Your task to perform on an android device: Open ESPN.com Image 0: 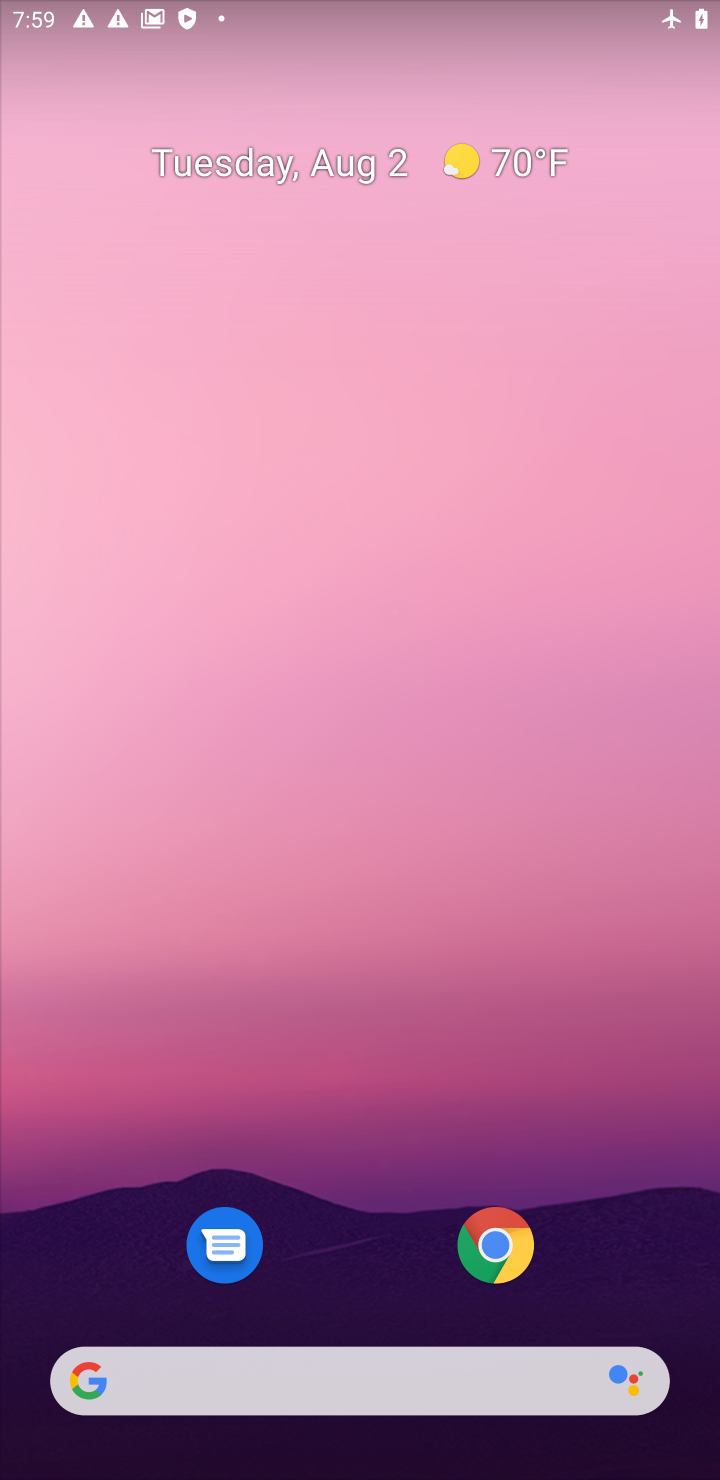
Step 0: click (506, 1260)
Your task to perform on an android device: Open ESPN.com Image 1: 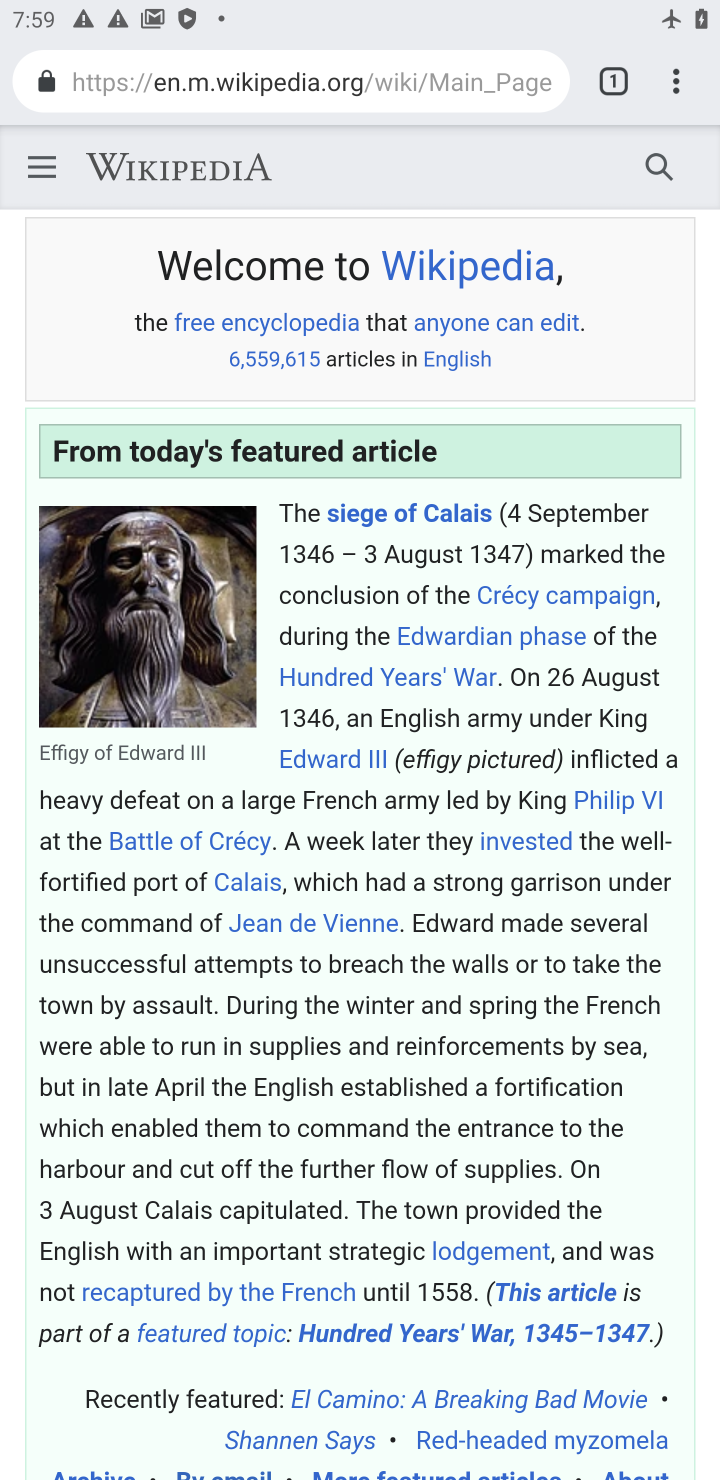
Step 1: click (402, 93)
Your task to perform on an android device: Open ESPN.com Image 2: 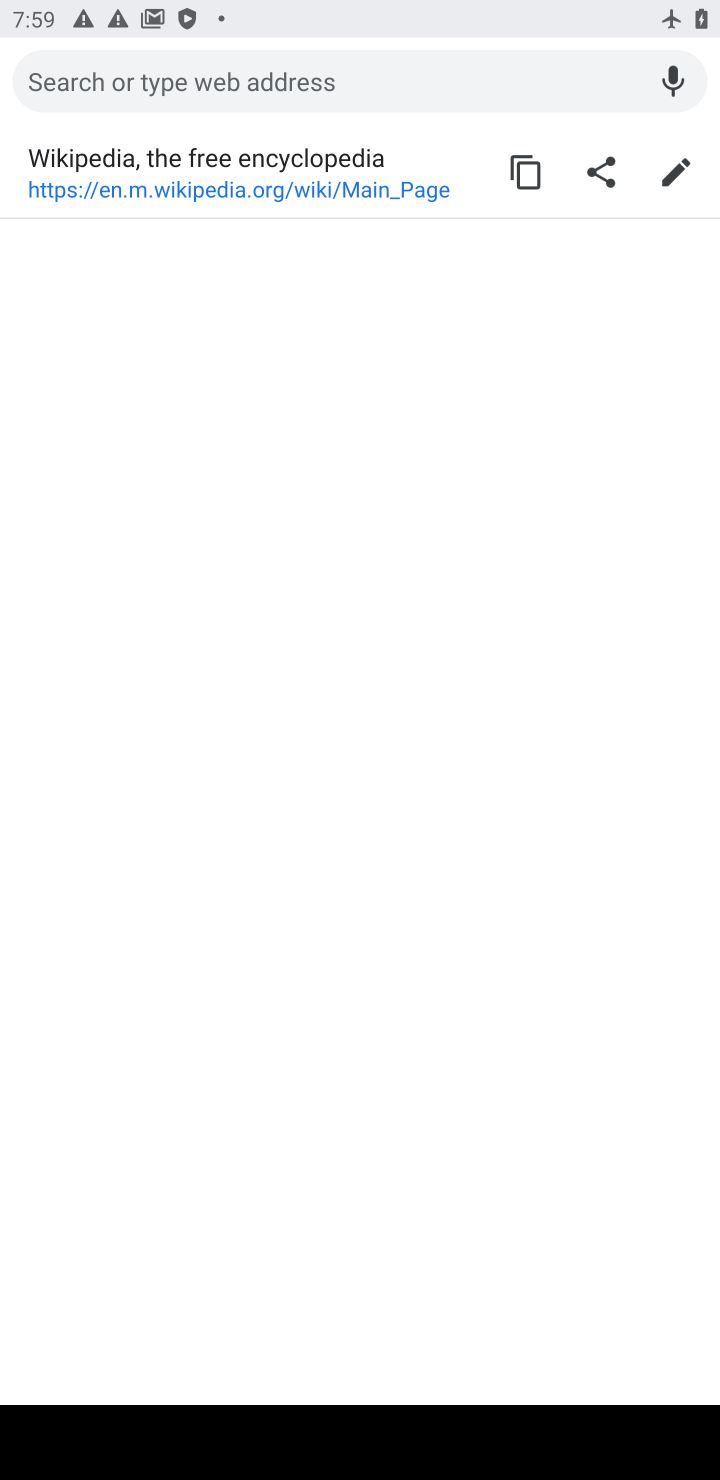
Step 2: type "www.espn.com"
Your task to perform on an android device: Open ESPN.com Image 3: 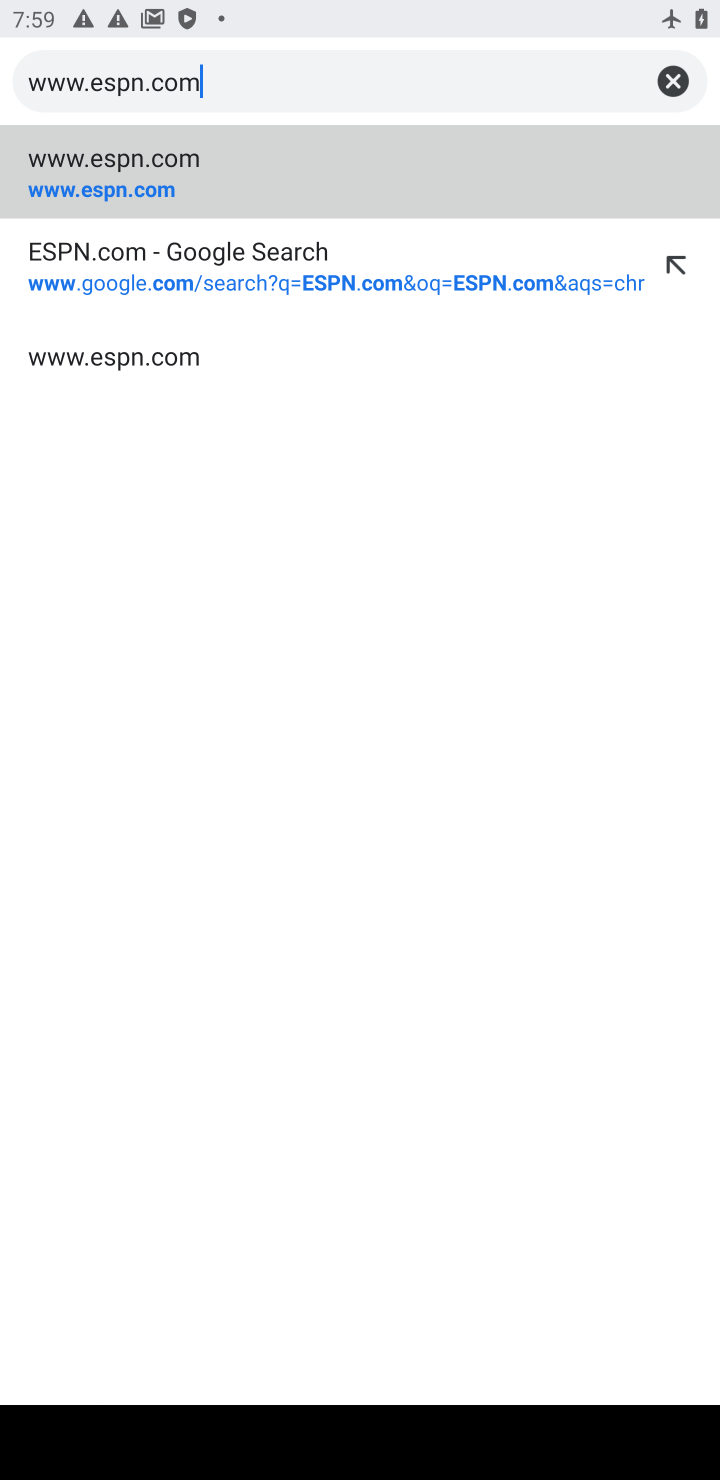
Step 3: click (104, 175)
Your task to perform on an android device: Open ESPN.com Image 4: 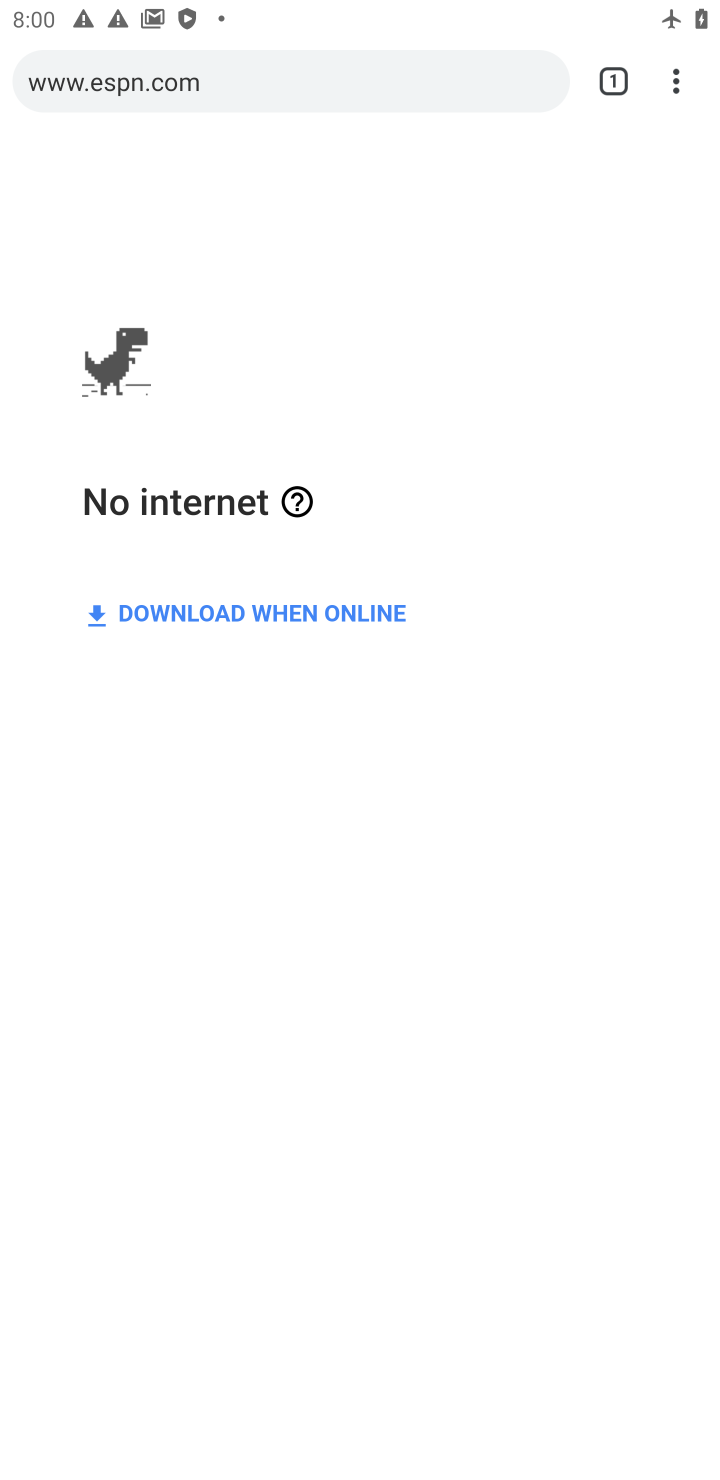
Step 4: task complete